Your task to perform on an android device: Open the calendar app, open the side menu, and click the "Day" option Image 0: 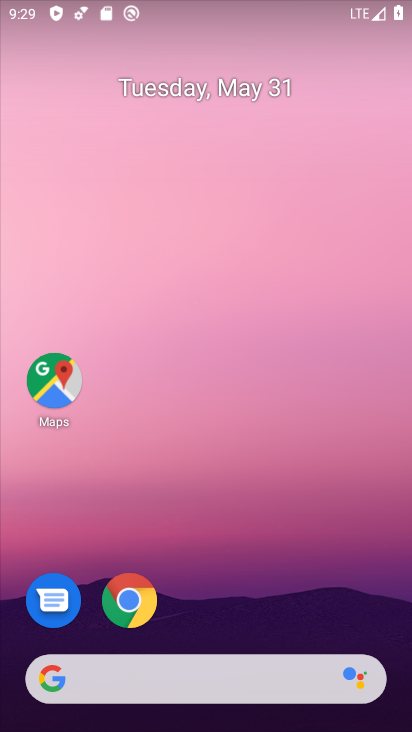
Step 0: drag from (236, 631) to (309, 94)
Your task to perform on an android device: Open the calendar app, open the side menu, and click the "Day" option Image 1: 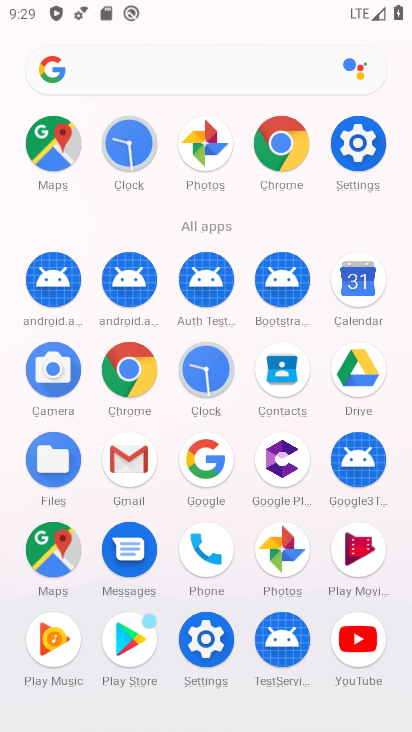
Step 1: click (357, 289)
Your task to perform on an android device: Open the calendar app, open the side menu, and click the "Day" option Image 2: 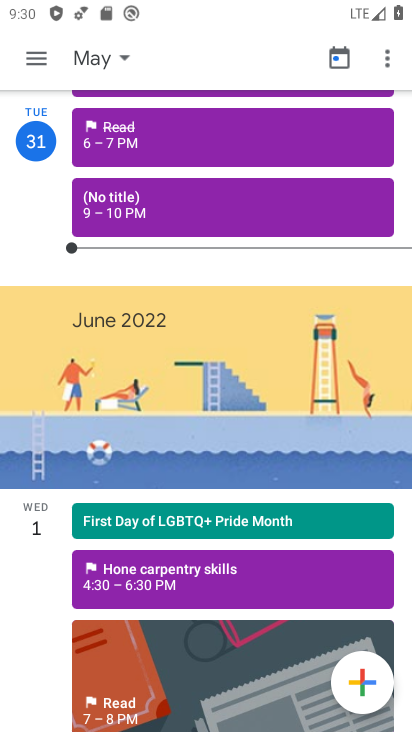
Step 2: click (37, 63)
Your task to perform on an android device: Open the calendar app, open the side menu, and click the "Day" option Image 3: 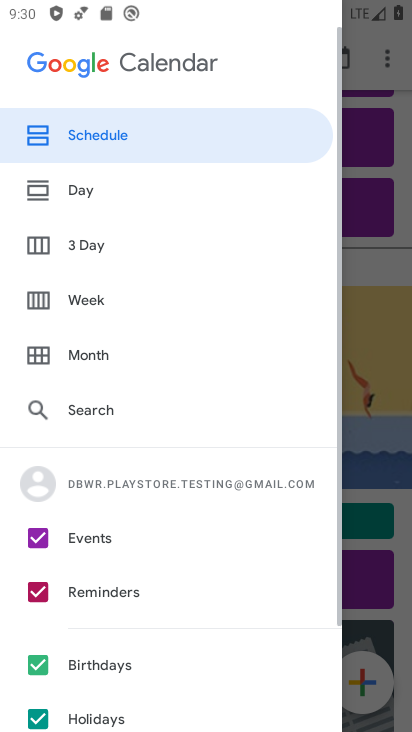
Step 3: click (66, 198)
Your task to perform on an android device: Open the calendar app, open the side menu, and click the "Day" option Image 4: 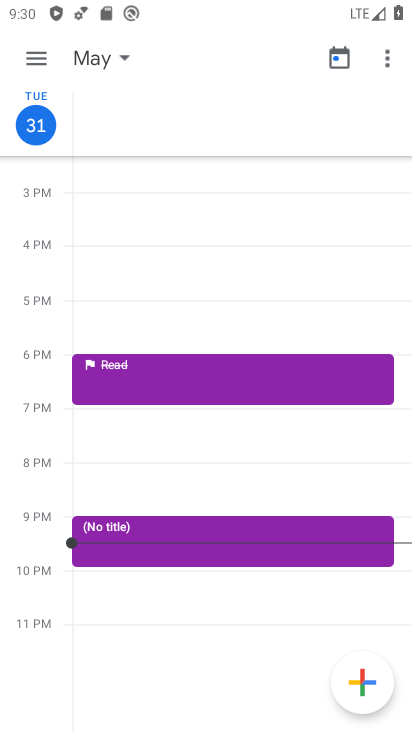
Step 4: task complete